Your task to perform on an android device: Open Google Chrome and click the shortcut for Amazon.com Image 0: 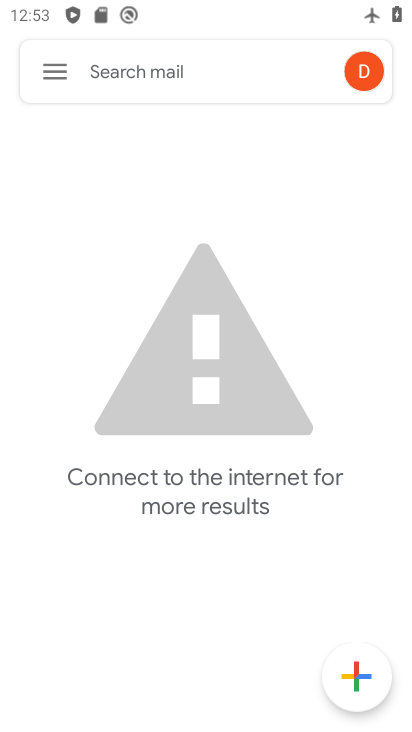
Step 0: press home button
Your task to perform on an android device: Open Google Chrome and click the shortcut for Amazon.com Image 1: 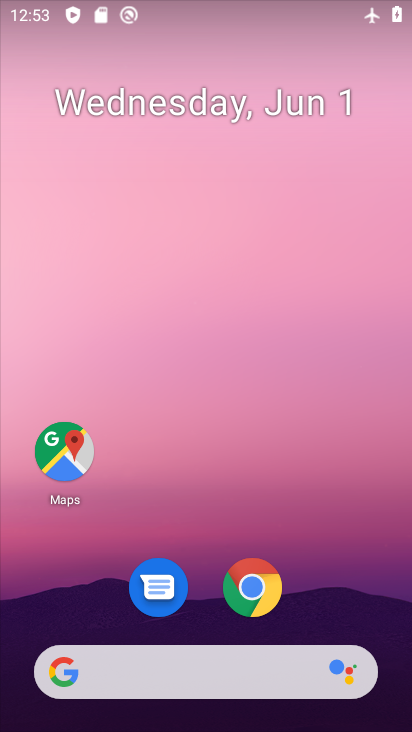
Step 1: click (243, 593)
Your task to perform on an android device: Open Google Chrome and click the shortcut for Amazon.com Image 2: 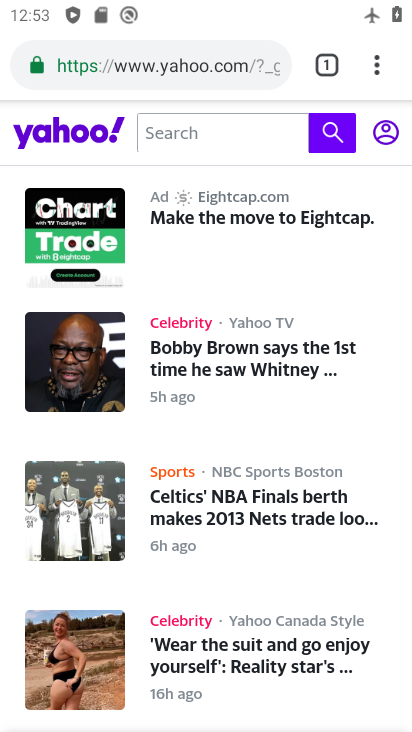
Step 2: click (381, 62)
Your task to perform on an android device: Open Google Chrome and click the shortcut for Amazon.com Image 3: 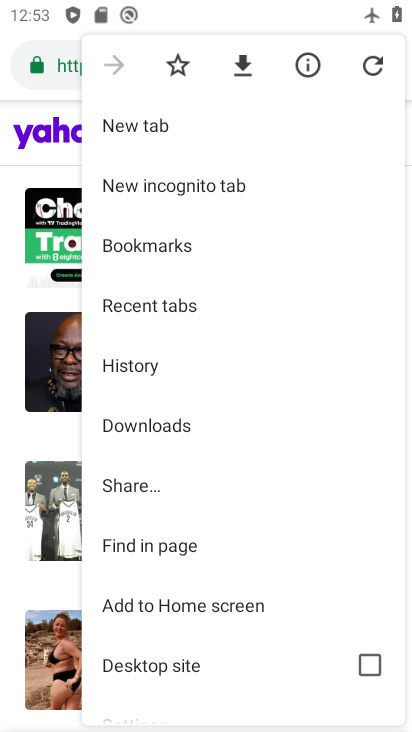
Step 3: click (127, 121)
Your task to perform on an android device: Open Google Chrome and click the shortcut for Amazon.com Image 4: 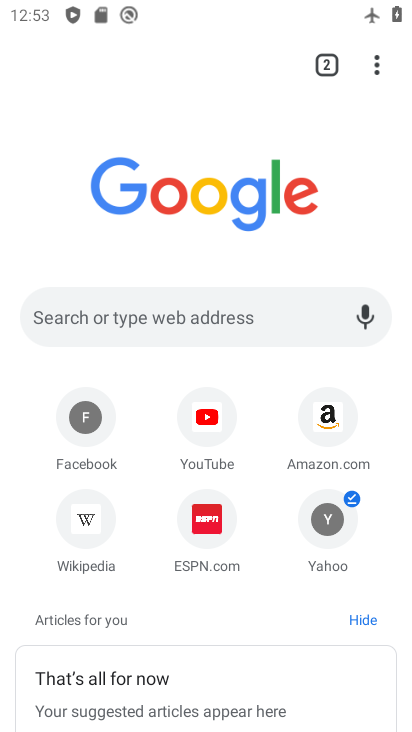
Step 4: click (334, 422)
Your task to perform on an android device: Open Google Chrome and click the shortcut for Amazon.com Image 5: 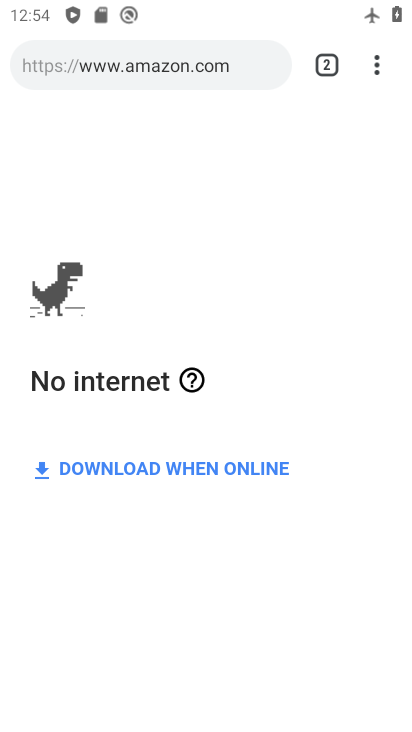
Step 5: task complete